Your task to perform on an android device: change alarm snooze length Image 0: 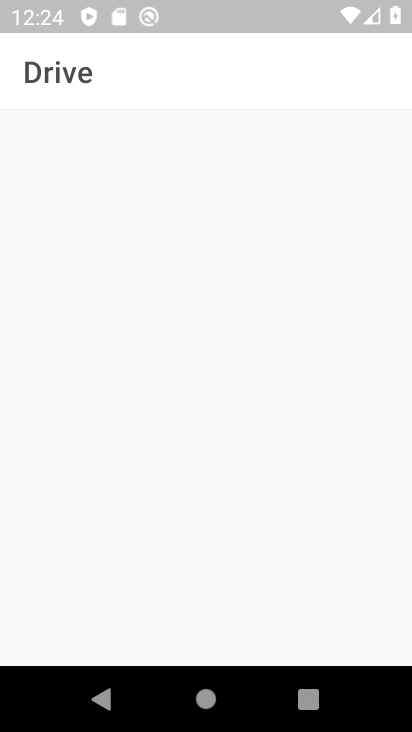
Step 0: press home button
Your task to perform on an android device: change alarm snooze length Image 1: 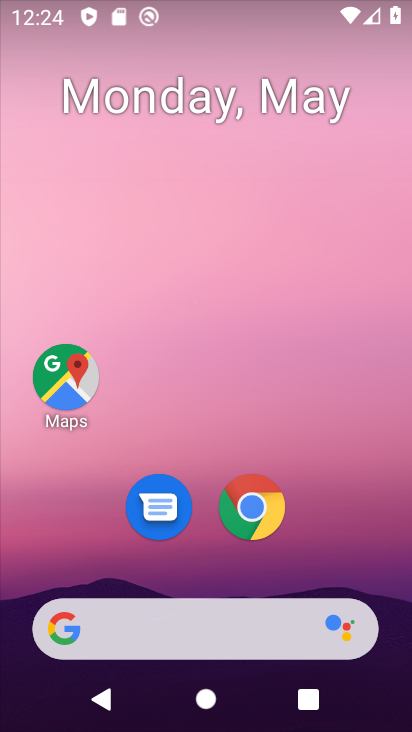
Step 1: drag from (226, 724) to (231, 124)
Your task to perform on an android device: change alarm snooze length Image 2: 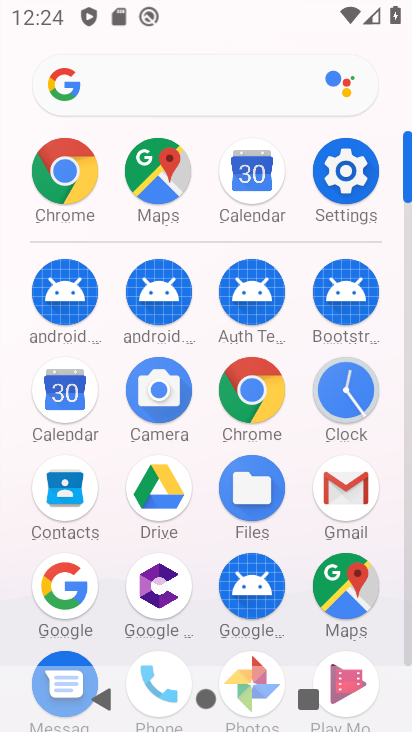
Step 2: click (348, 394)
Your task to perform on an android device: change alarm snooze length Image 3: 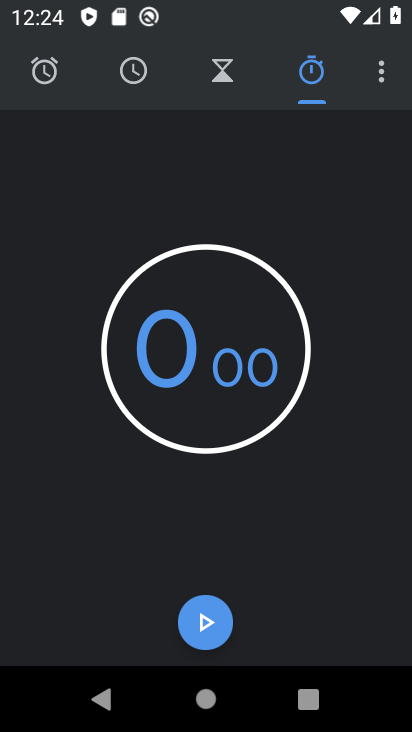
Step 3: click (382, 80)
Your task to perform on an android device: change alarm snooze length Image 4: 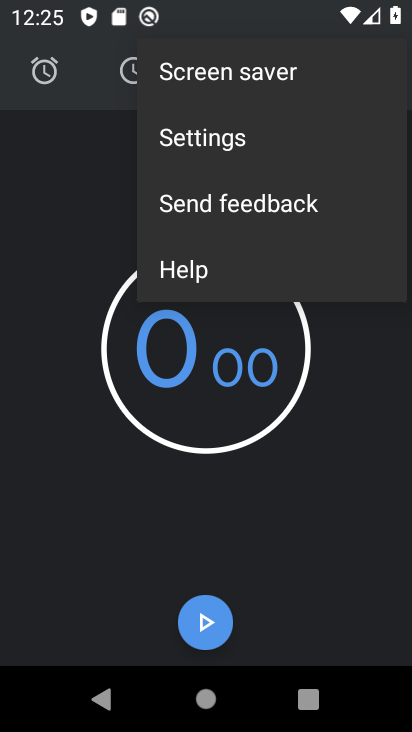
Step 4: click (200, 142)
Your task to perform on an android device: change alarm snooze length Image 5: 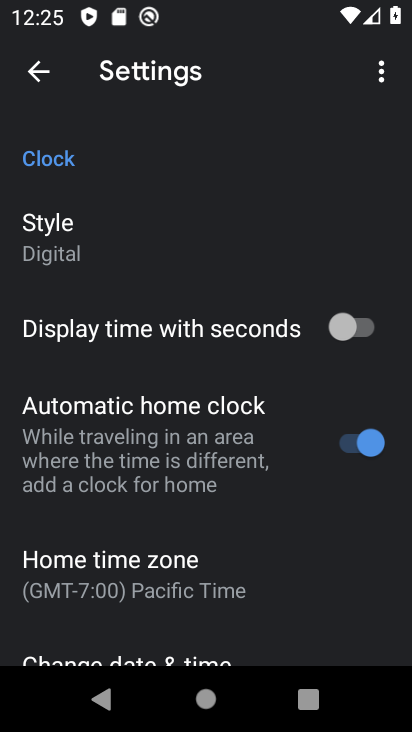
Step 5: drag from (135, 611) to (129, 182)
Your task to perform on an android device: change alarm snooze length Image 6: 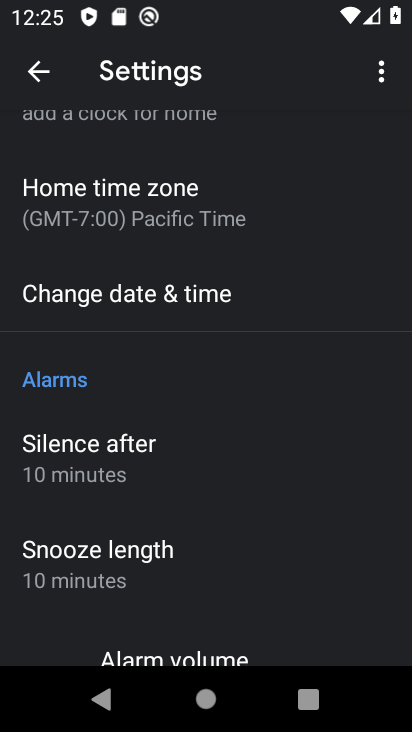
Step 6: click (114, 570)
Your task to perform on an android device: change alarm snooze length Image 7: 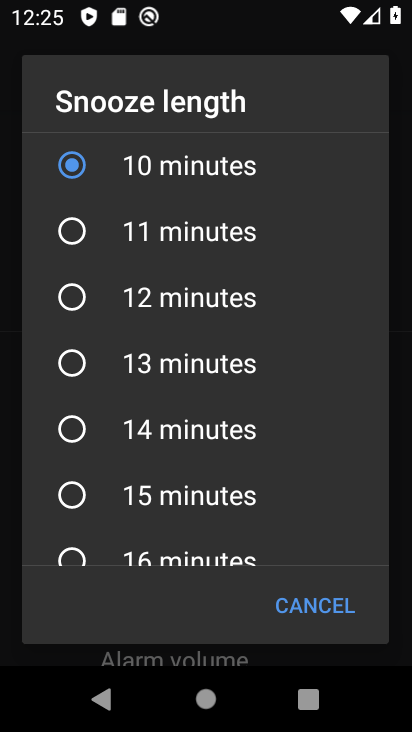
Step 7: click (69, 423)
Your task to perform on an android device: change alarm snooze length Image 8: 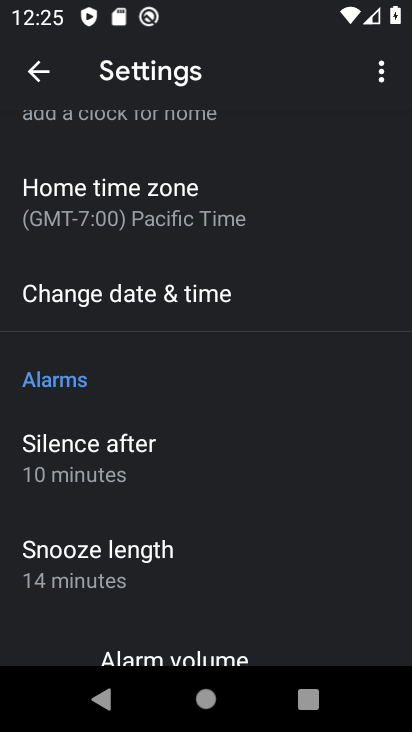
Step 8: task complete